Your task to perform on an android device: Play the last video I watched on Youtube Image 0: 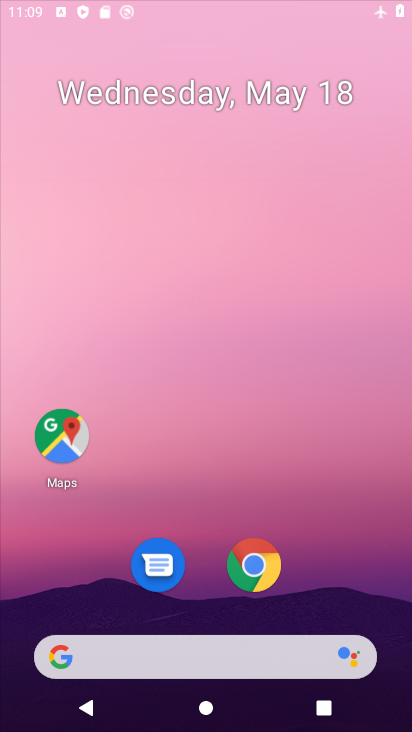
Step 0: click (248, 585)
Your task to perform on an android device: Play the last video I watched on Youtube Image 1: 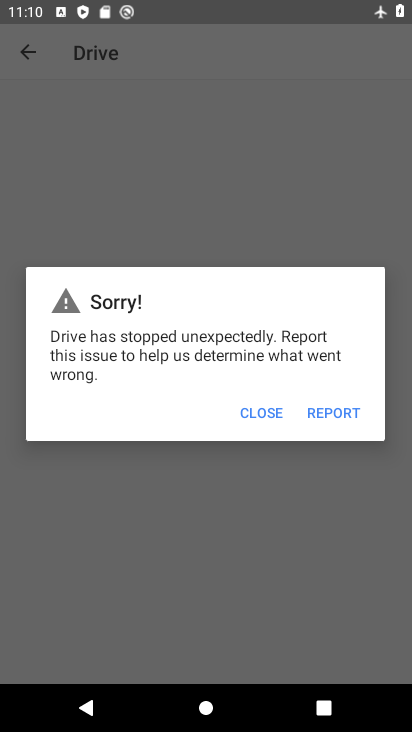
Step 1: click (256, 424)
Your task to perform on an android device: Play the last video I watched on Youtube Image 2: 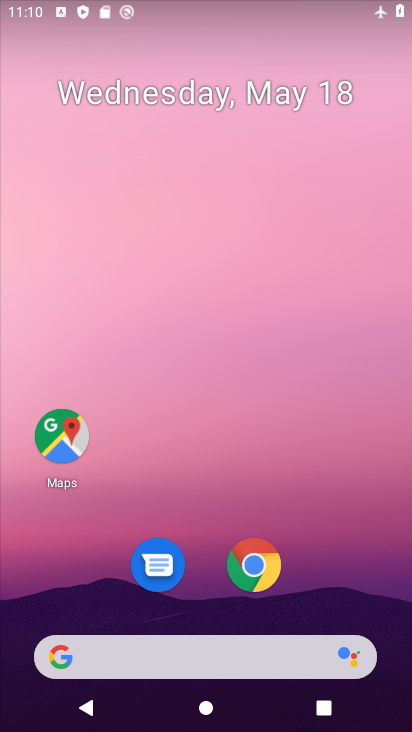
Step 2: drag from (170, 650) to (166, 5)
Your task to perform on an android device: Play the last video I watched on Youtube Image 3: 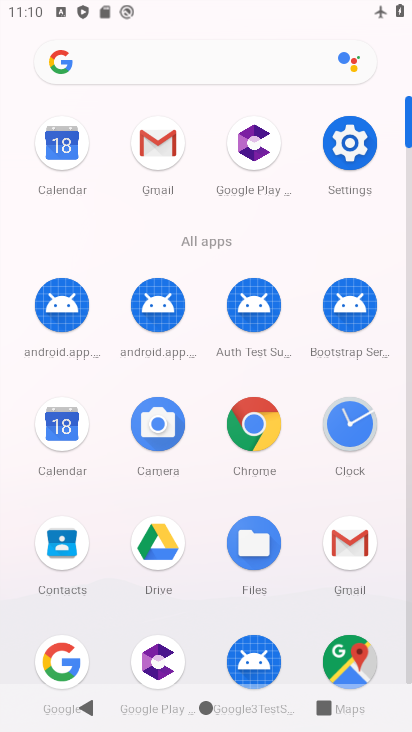
Step 3: drag from (193, 613) to (129, 119)
Your task to perform on an android device: Play the last video I watched on Youtube Image 4: 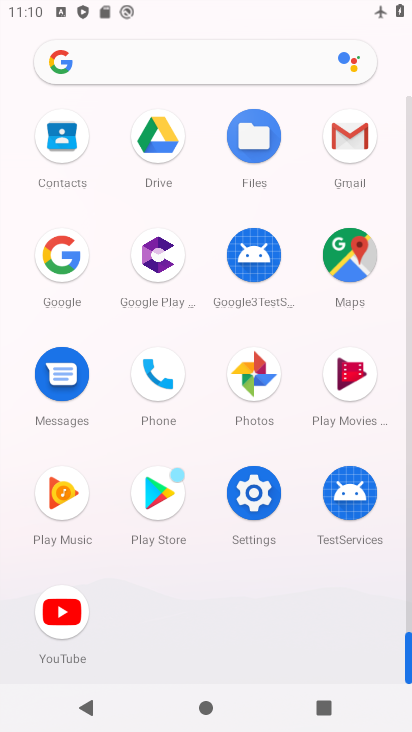
Step 4: click (53, 628)
Your task to perform on an android device: Play the last video I watched on Youtube Image 5: 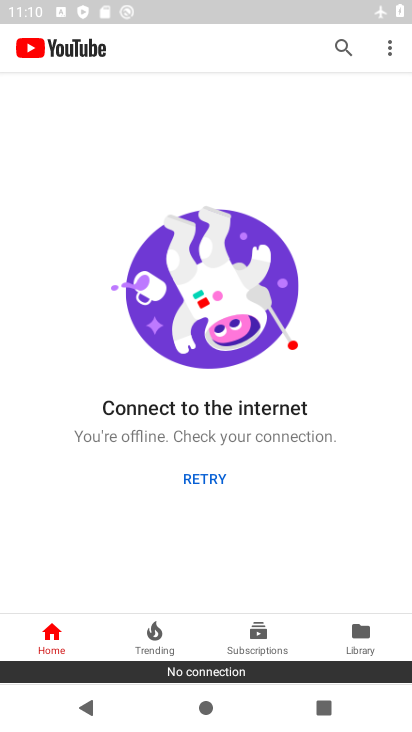
Step 5: click (362, 637)
Your task to perform on an android device: Play the last video I watched on Youtube Image 6: 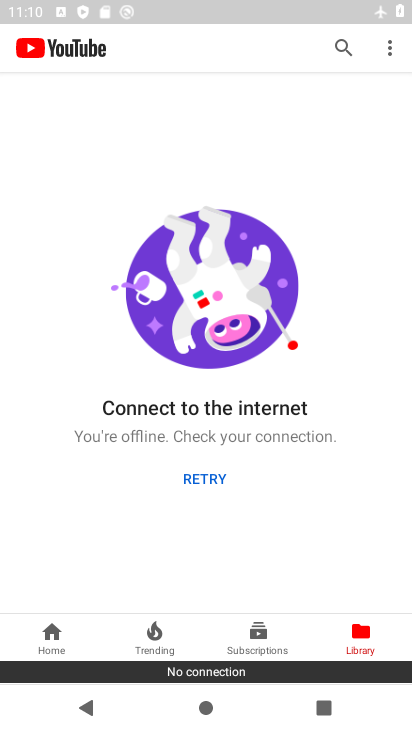
Step 6: task complete